Your task to perform on an android device: turn on location history Image 0: 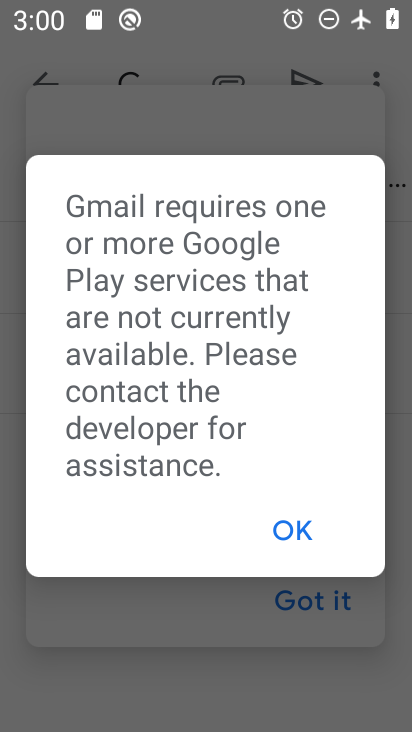
Step 0: press home button
Your task to perform on an android device: turn on location history Image 1: 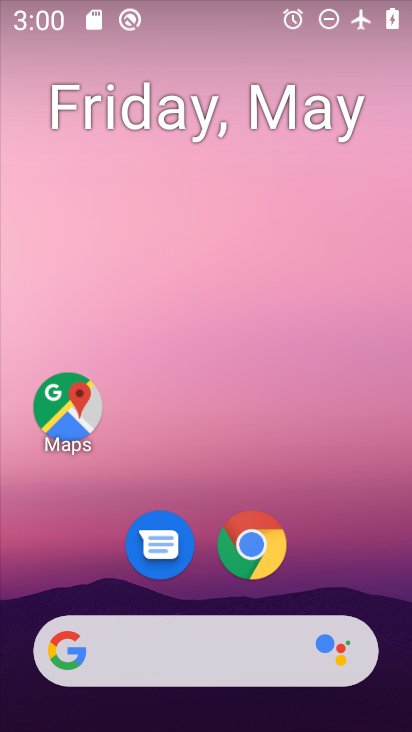
Step 1: drag from (346, 582) to (345, 362)
Your task to perform on an android device: turn on location history Image 2: 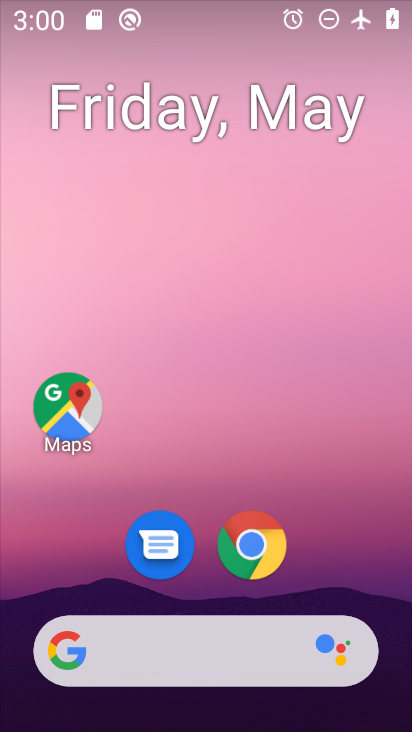
Step 2: drag from (221, 509) to (193, 338)
Your task to perform on an android device: turn on location history Image 3: 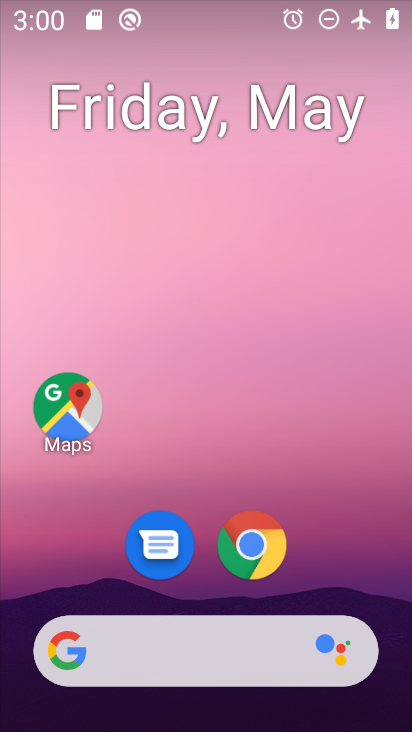
Step 3: drag from (322, 470) to (310, 356)
Your task to perform on an android device: turn on location history Image 4: 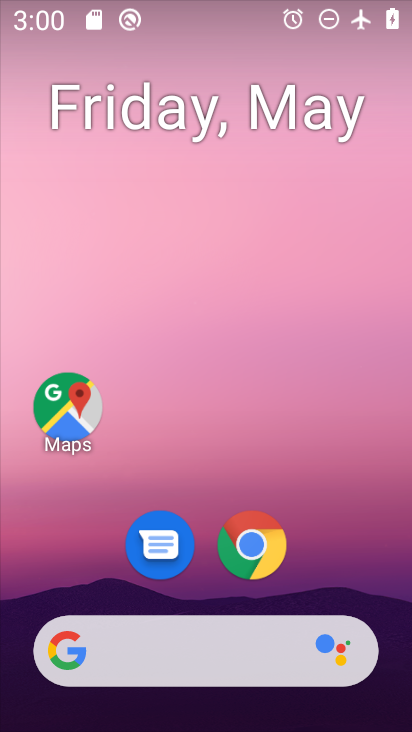
Step 4: drag from (253, 609) to (264, 310)
Your task to perform on an android device: turn on location history Image 5: 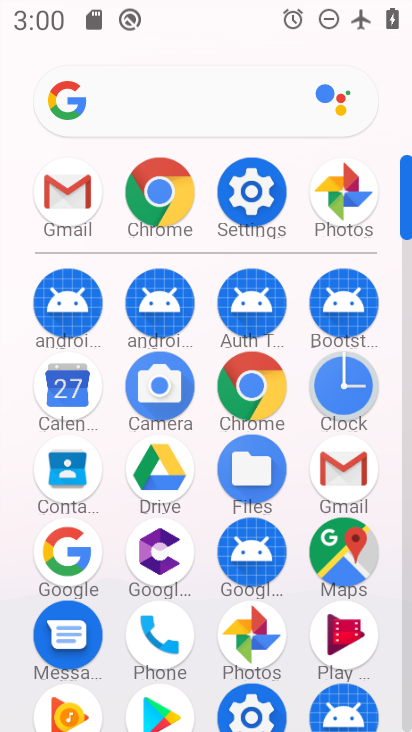
Step 5: click (262, 189)
Your task to perform on an android device: turn on location history Image 6: 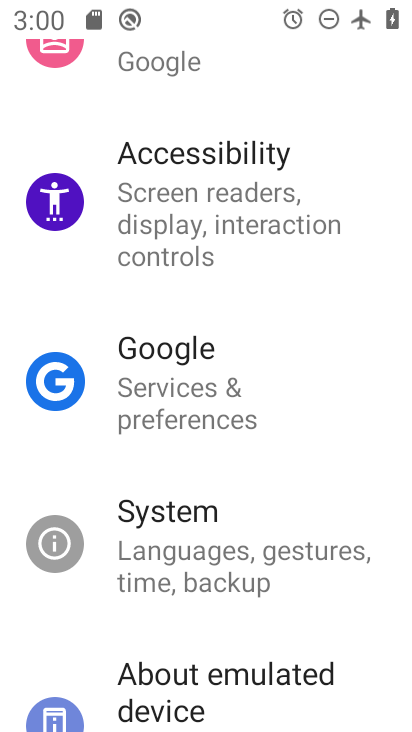
Step 6: drag from (167, 625) to (224, 683)
Your task to perform on an android device: turn on location history Image 7: 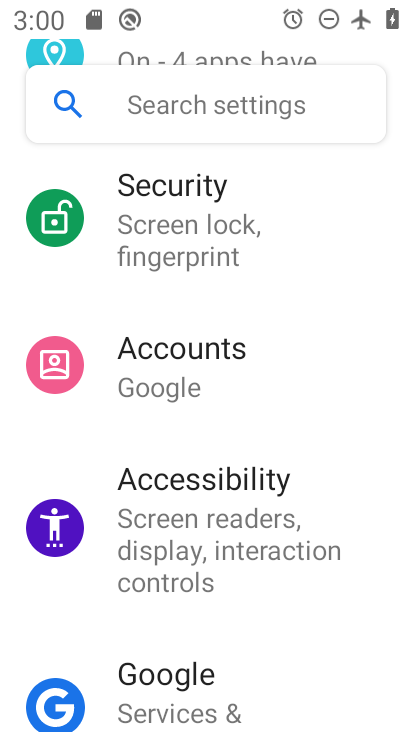
Step 7: drag from (248, 233) to (263, 679)
Your task to perform on an android device: turn on location history Image 8: 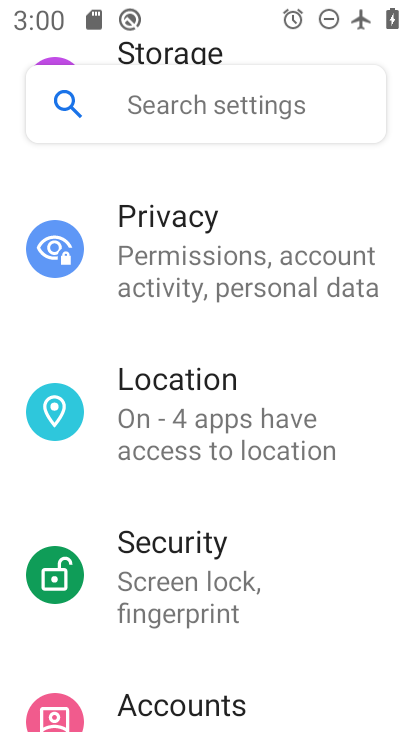
Step 8: click (225, 423)
Your task to perform on an android device: turn on location history Image 9: 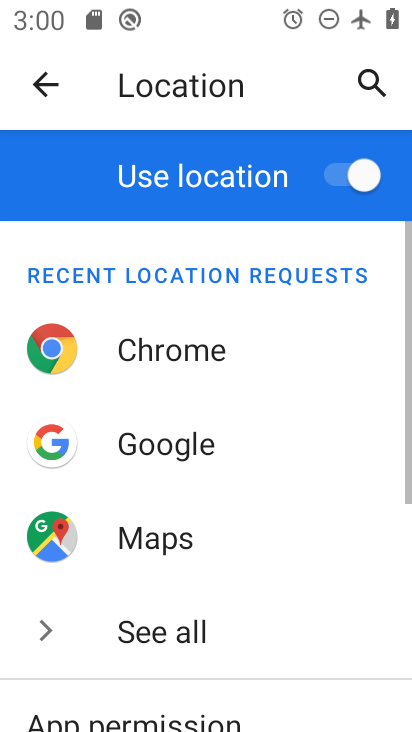
Step 9: drag from (234, 622) to (279, 309)
Your task to perform on an android device: turn on location history Image 10: 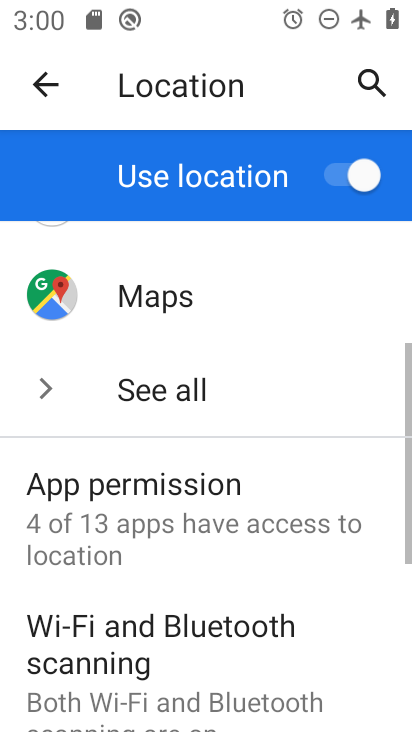
Step 10: drag from (226, 675) to (226, 326)
Your task to perform on an android device: turn on location history Image 11: 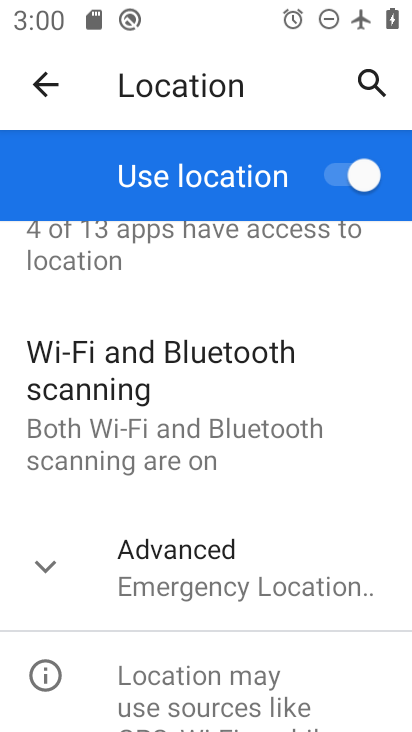
Step 11: click (193, 572)
Your task to perform on an android device: turn on location history Image 12: 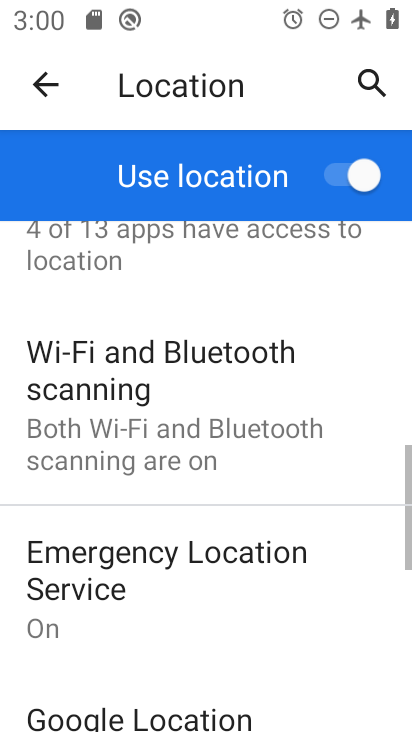
Step 12: drag from (217, 626) to (246, 342)
Your task to perform on an android device: turn on location history Image 13: 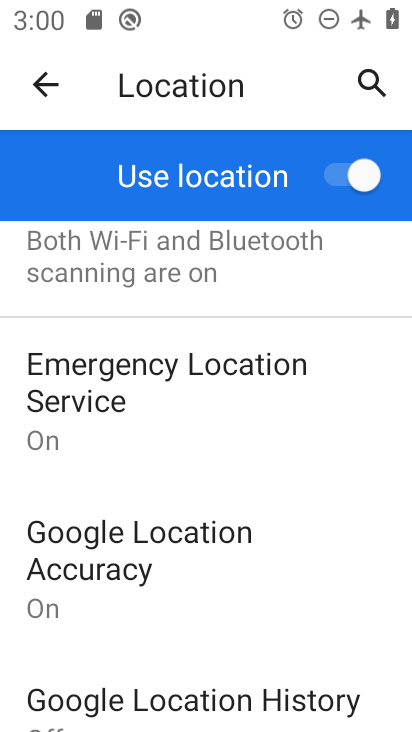
Step 13: drag from (189, 674) to (231, 356)
Your task to perform on an android device: turn on location history Image 14: 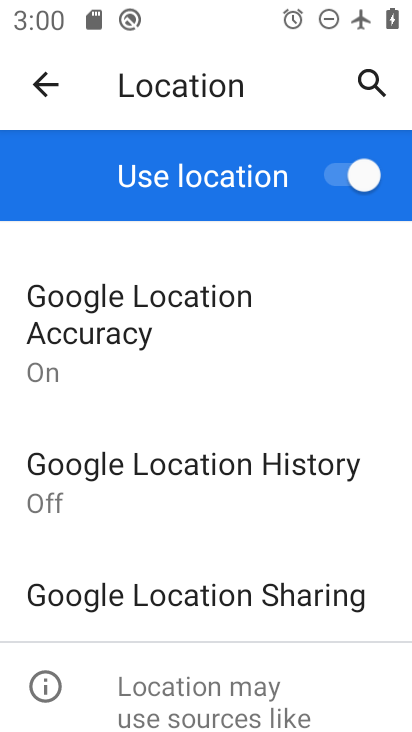
Step 14: click (186, 486)
Your task to perform on an android device: turn on location history Image 15: 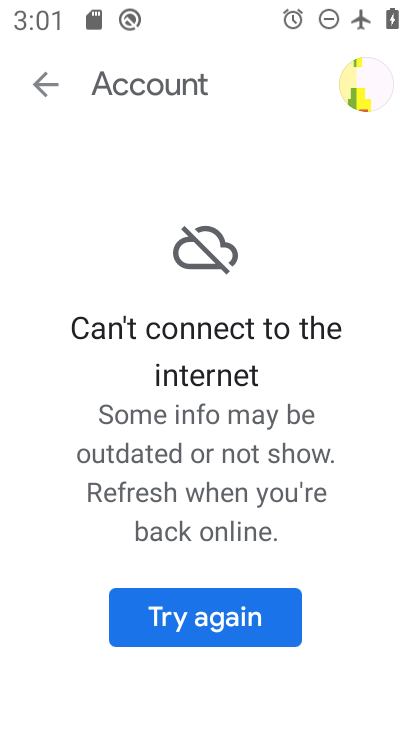
Step 15: task complete